Your task to perform on an android device: Open privacy settings Image 0: 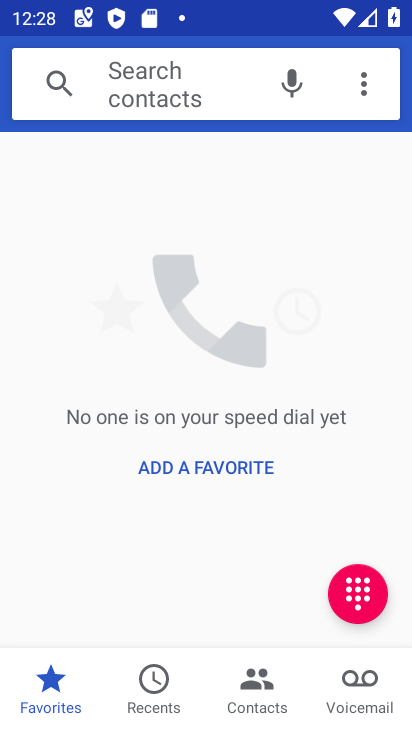
Step 0: press home button
Your task to perform on an android device: Open privacy settings Image 1: 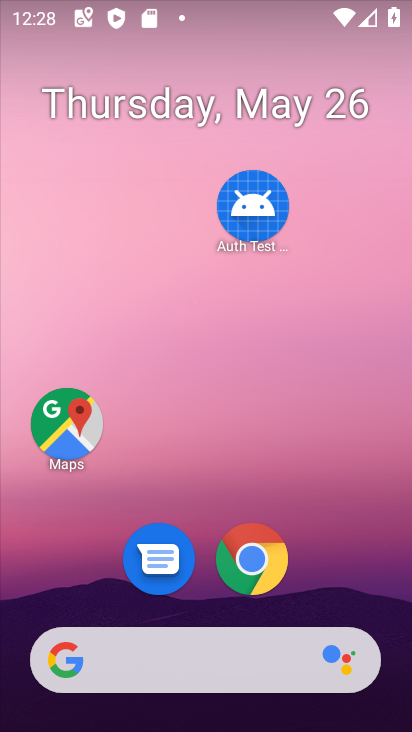
Step 1: drag from (344, 584) to (380, 109)
Your task to perform on an android device: Open privacy settings Image 2: 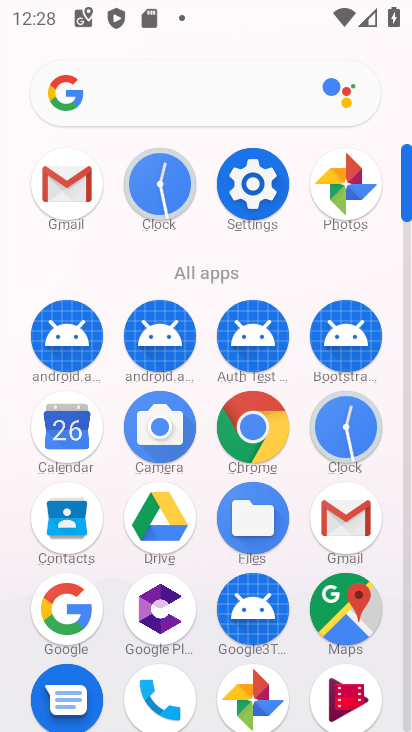
Step 2: click (273, 204)
Your task to perform on an android device: Open privacy settings Image 3: 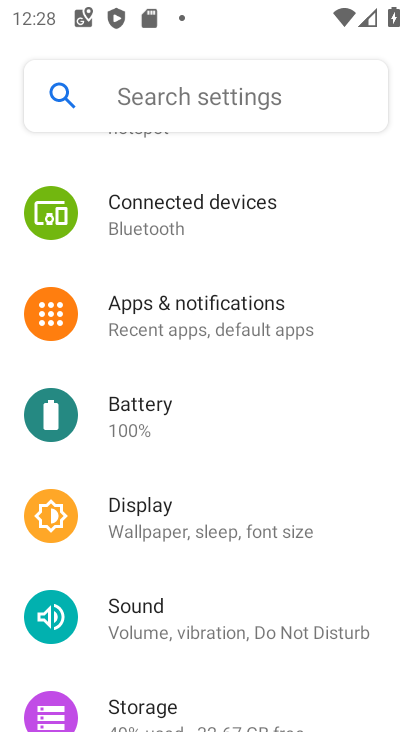
Step 3: drag from (286, 663) to (313, 274)
Your task to perform on an android device: Open privacy settings Image 4: 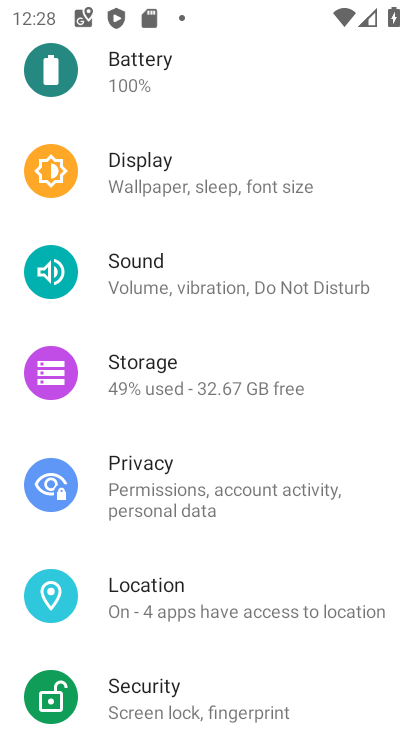
Step 4: click (252, 481)
Your task to perform on an android device: Open privacy settings Image 5: 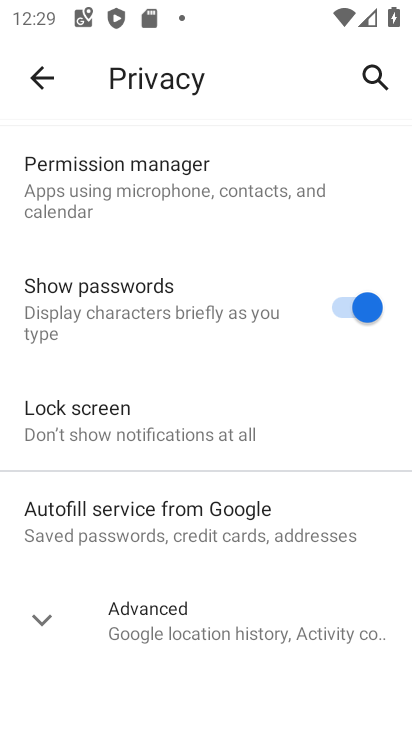
Step 5: task complete